Your task to perform on an android device: See recent photos Image 0: 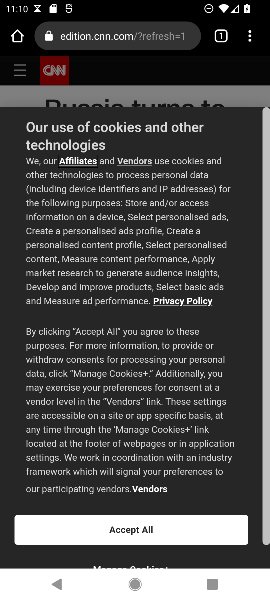
Step 0: press home button
Your task to perform on an android device: See recent photos Image 1: 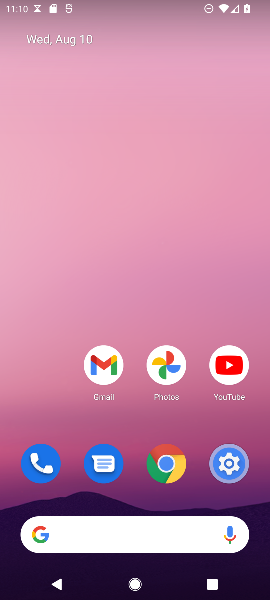
Step 1: click (167, 376)
Your task to perform on an android device: See recent photos Image 2: 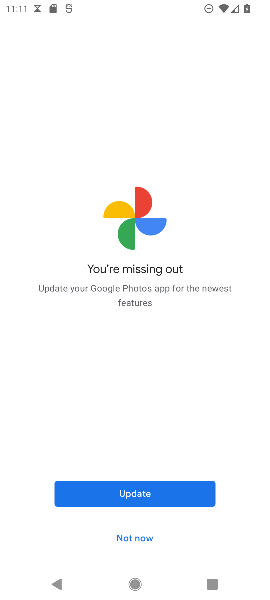
Step 2: click (129, 537)
Your task to perform on an android device: See recent photos Image 3: 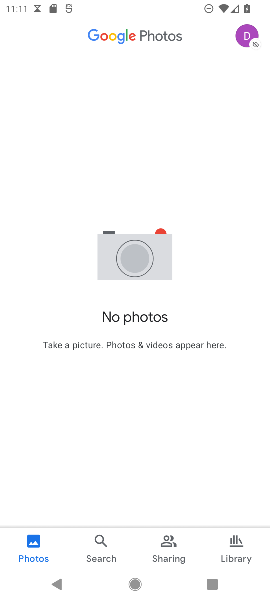
Step 3: task complete